Your task to perform on an android device: Search for "razer naga" on walmart, select the first entry, and add it to the cart. Image 0: 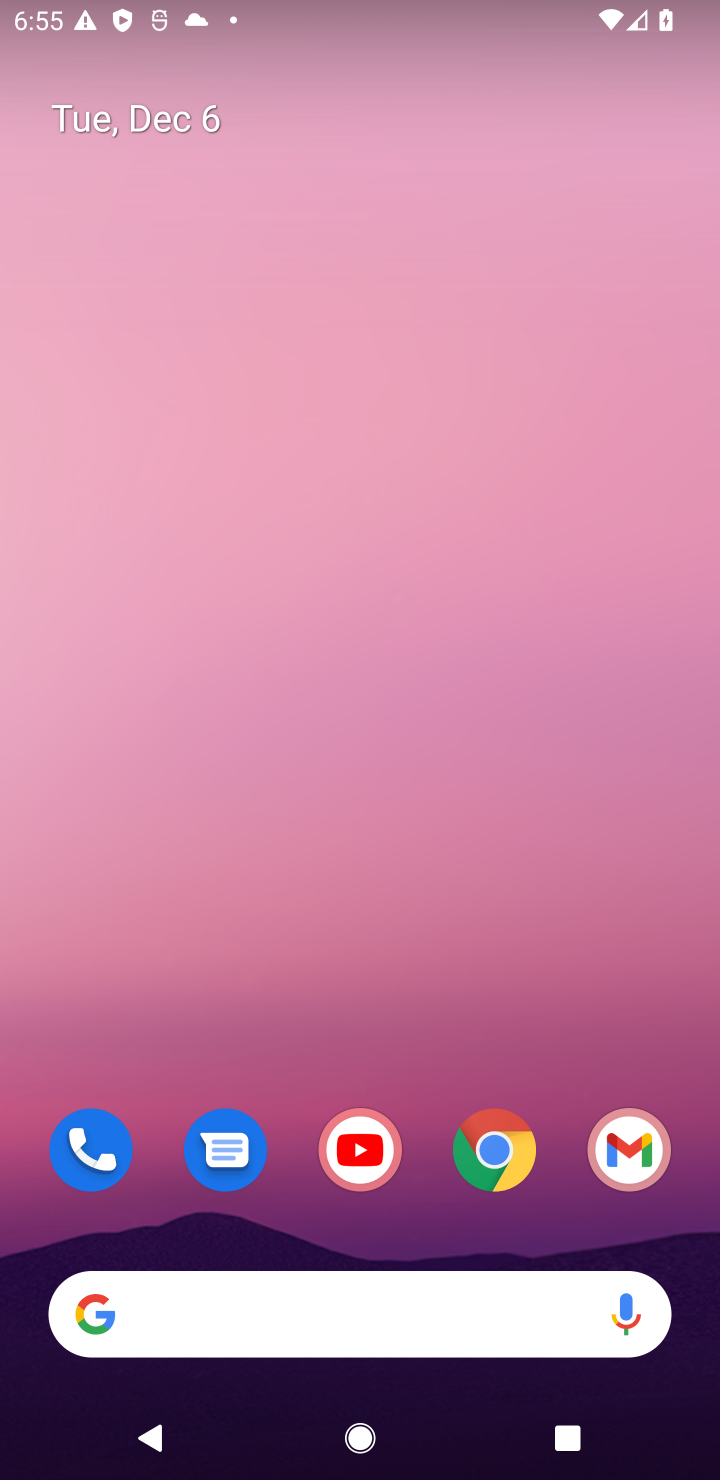
Step 0: click (499, 1154)
Your task to perform on an android device: Search for "razer naga" on walmart, select the first entry, and add it to the cart. Image 1: 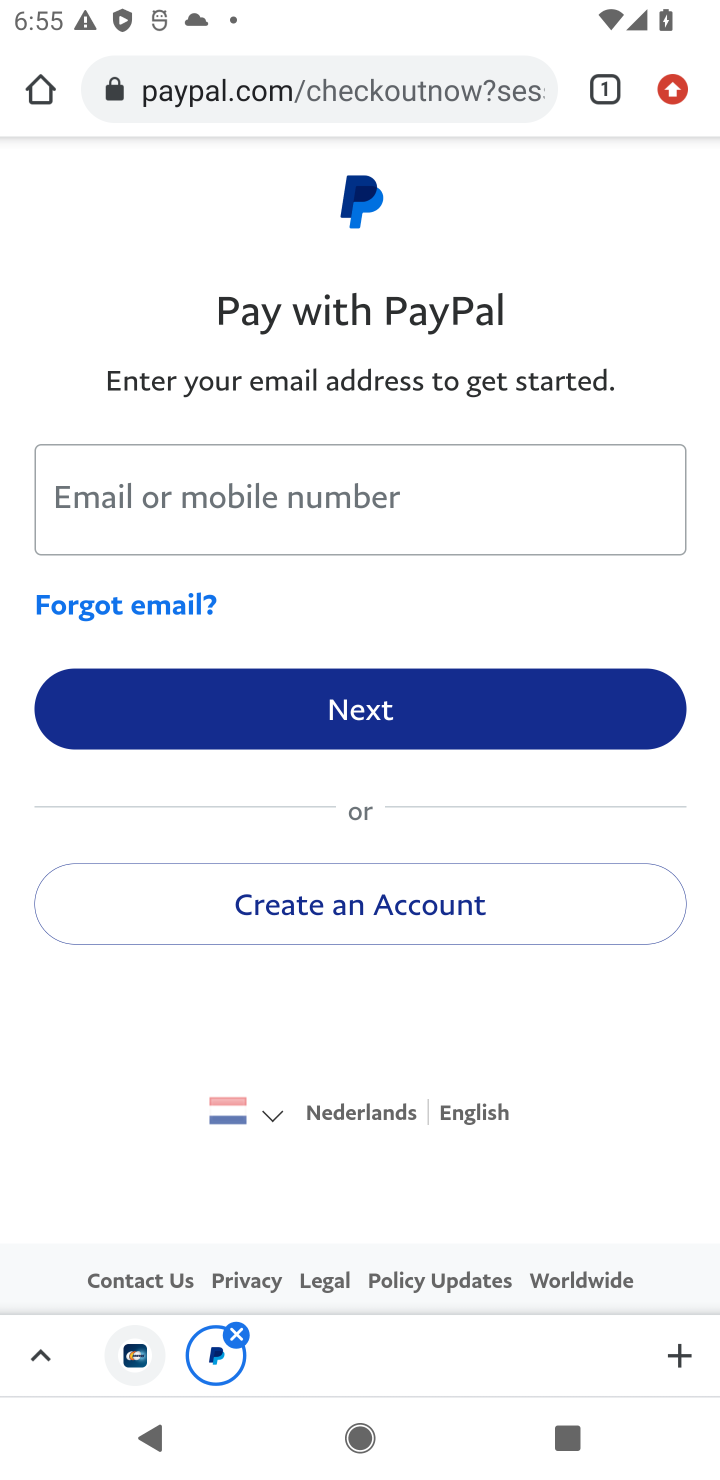
Step 1: click (294, 98)
Your task to perform on an android device: Search for "razer naga" on walmart, select the first entry, and add it to the cart. Image 2: 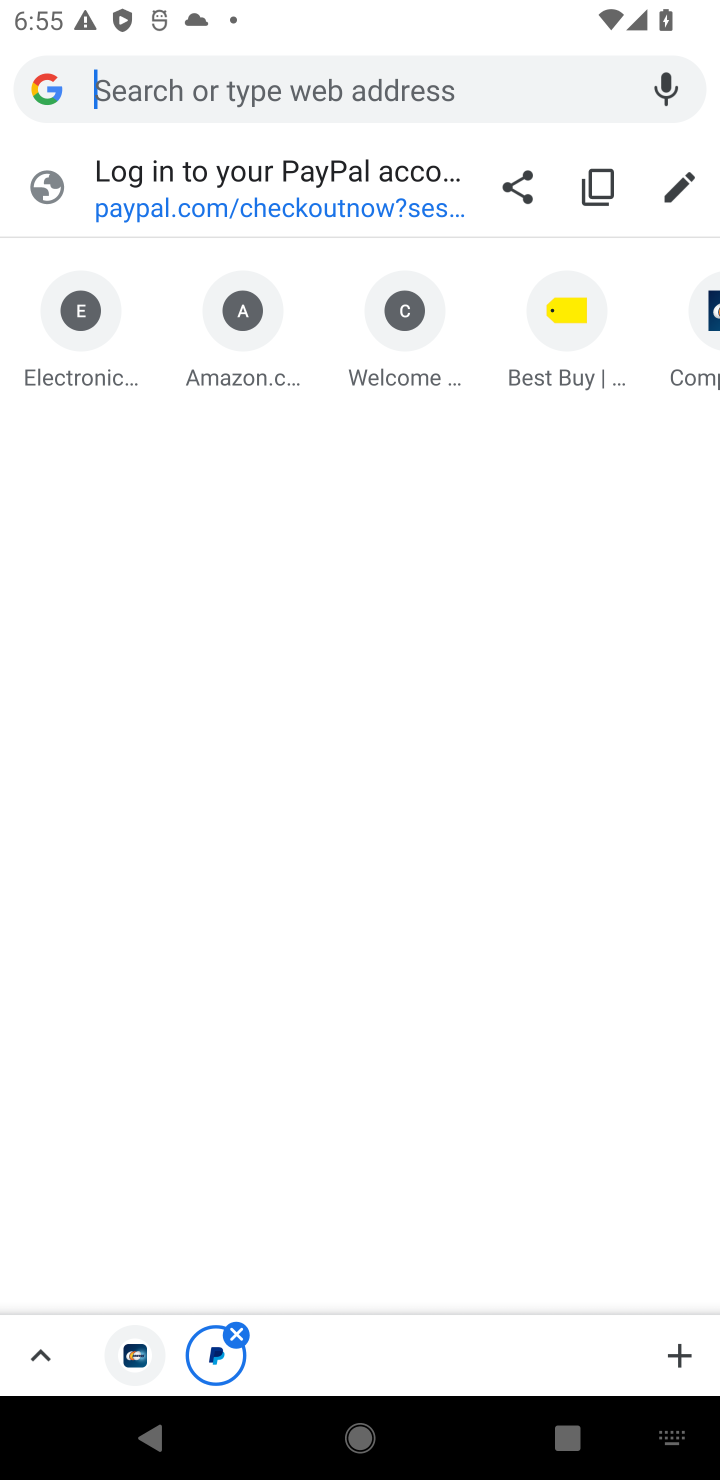
Step 2: type "walmart.com"
Your task to perform on an android device: Search for "razer naga" on walmart, select the first entry, and add it to the cart. Image 3: 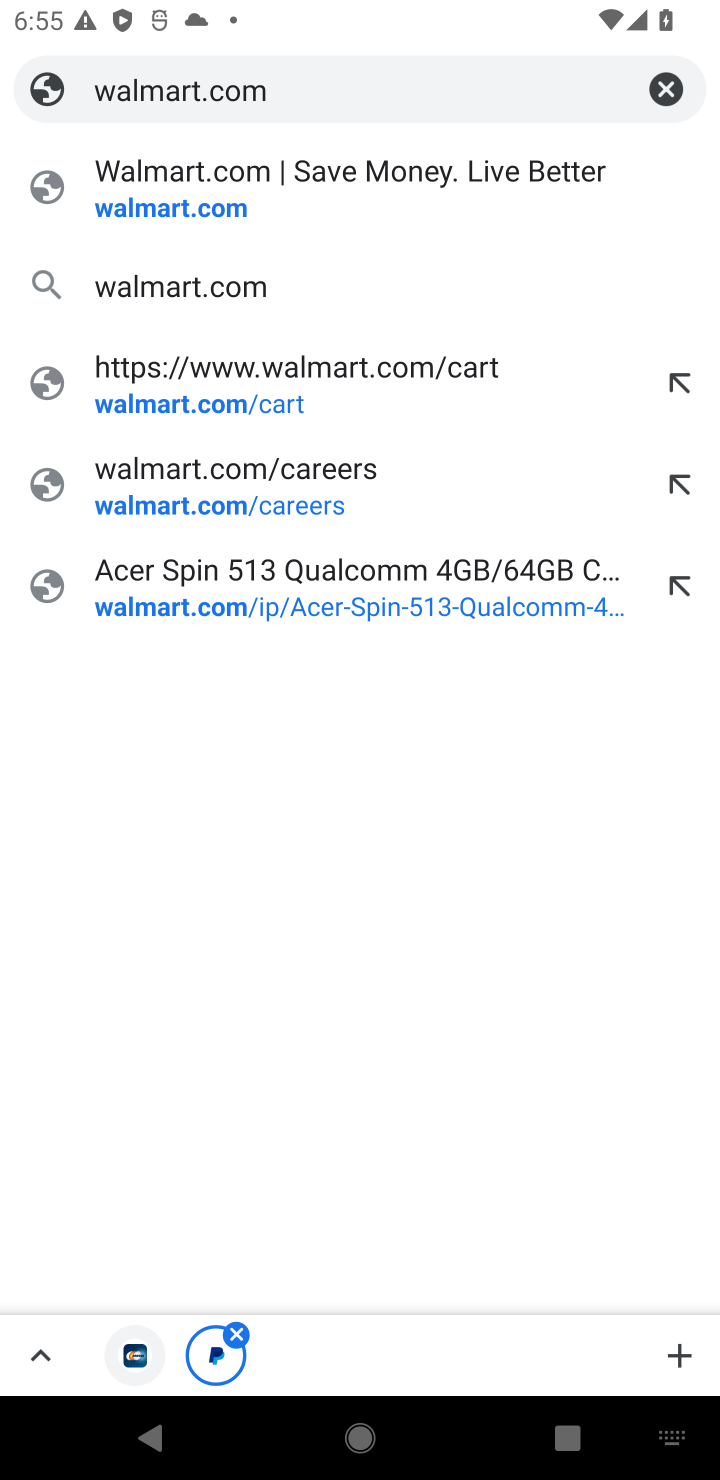
Step 3: click (177, 200)
Your task to perform on an android device: Search for "razer naga" on walmart, select the first entry, and add it to the cart. Image 4: 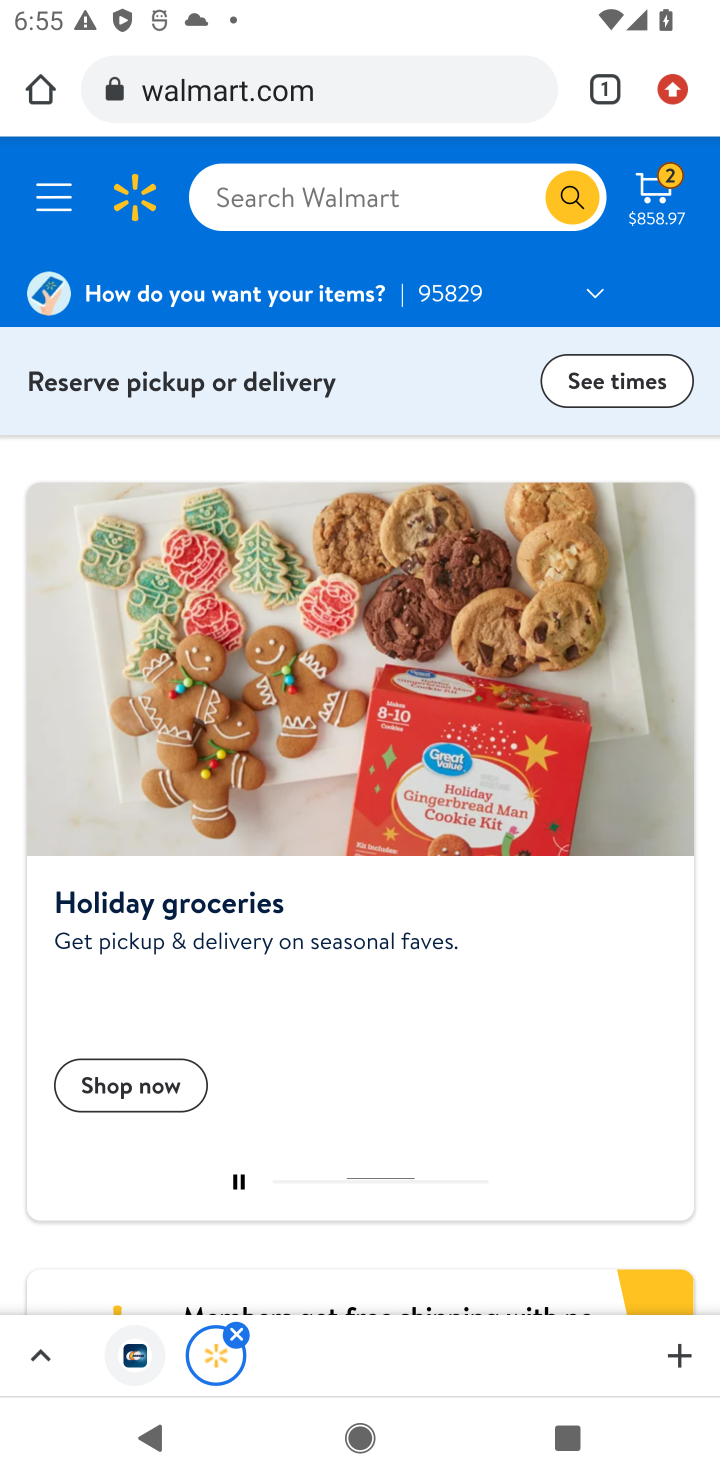
Step 4: click (324, 191)
Your task to perform on an android device: Search for "razer naga" on walmart, select the first entry, and add it to the cart. Image 5: 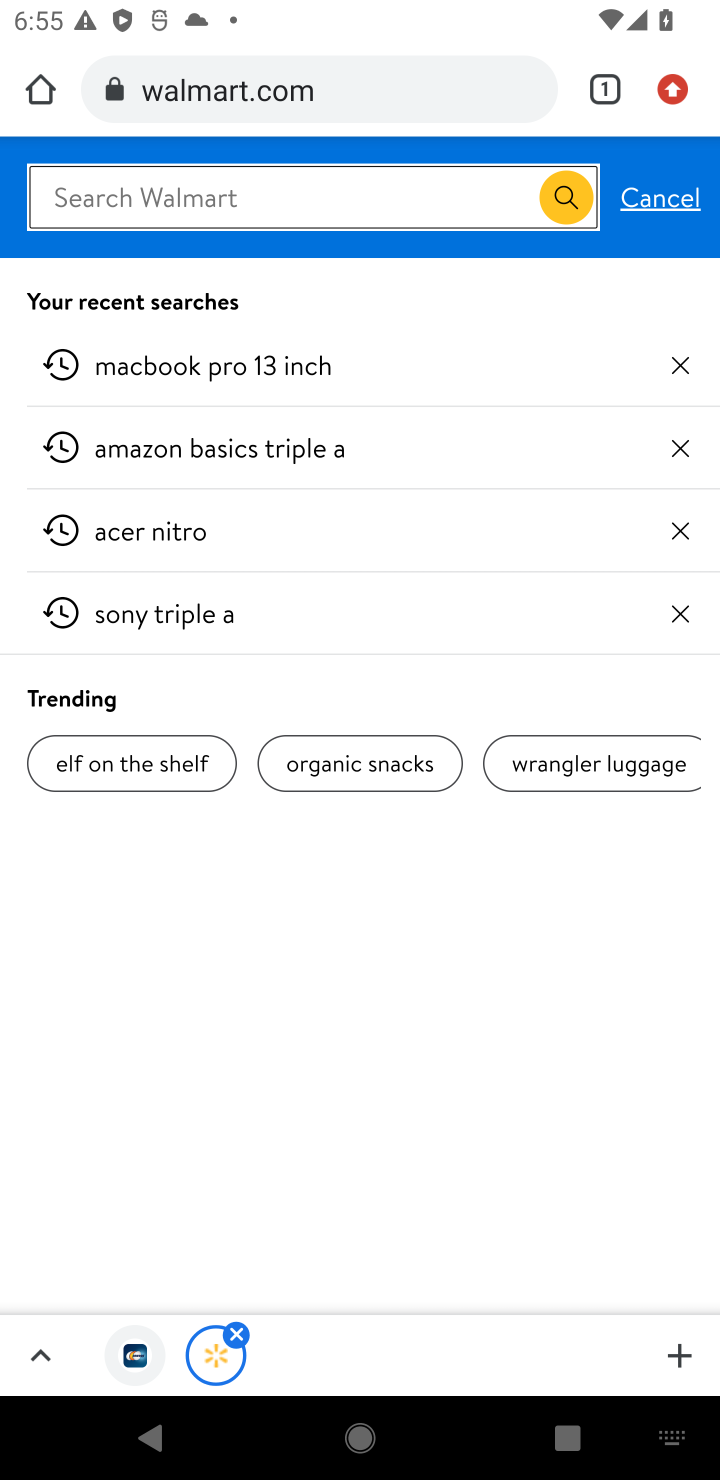
Step 5: type "razer naga"
Your task to perform on an android device: Search for "razer naga" on walmart, select the first entry, and add it to the cart. Image 6: 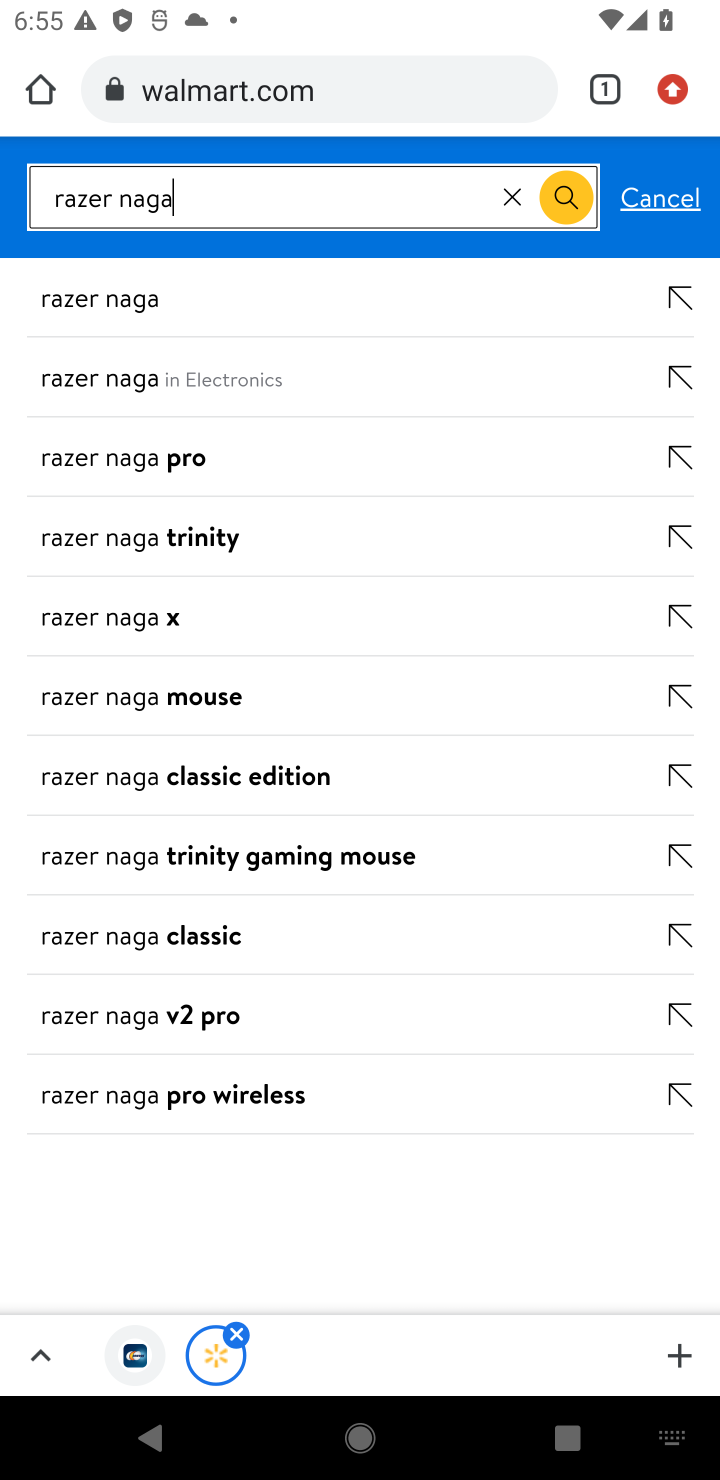
Step 6: click (113, 309)
Your task to perform on an android device: Search for "razer naga" on walmart, select the first entry, and add it to the cart. Image 7: 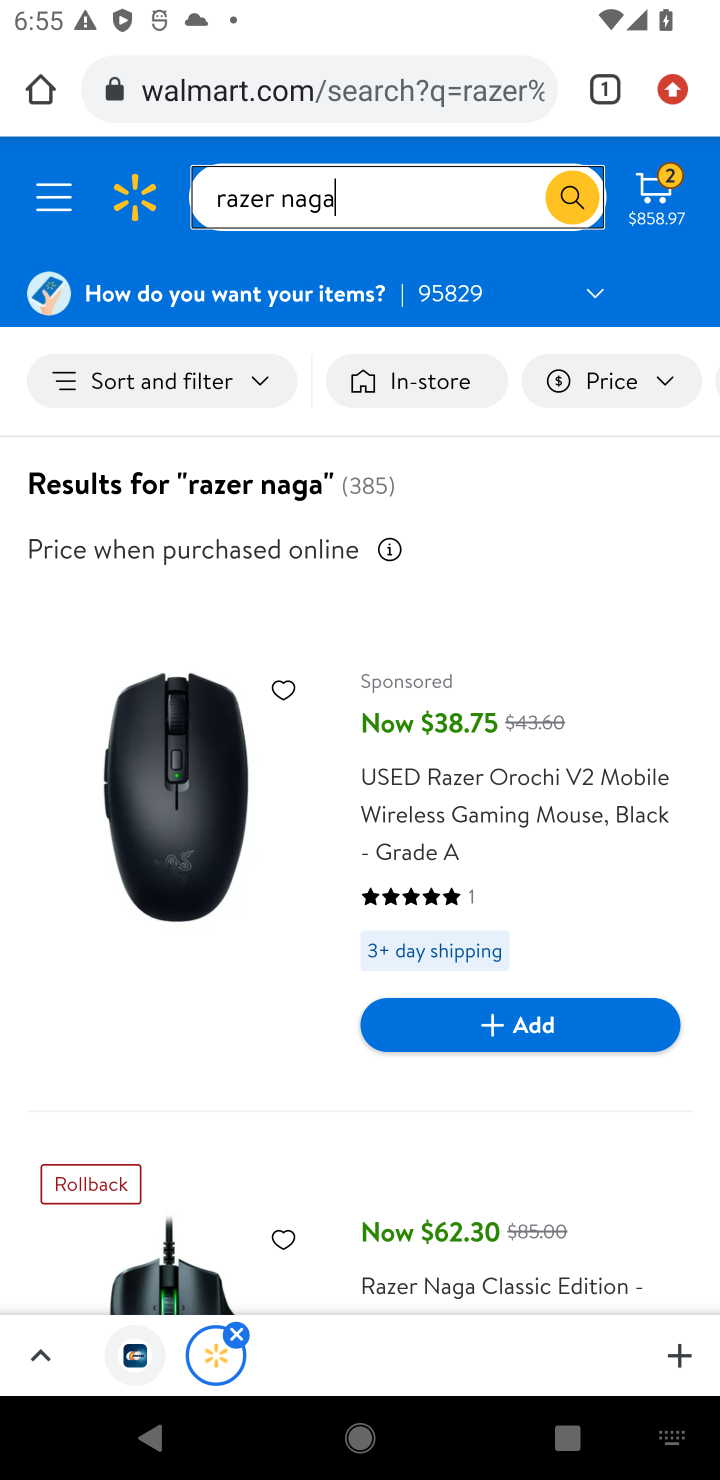
Step 7: task complete